Your task to perform on an android device: Do I have any events today? Image 0: 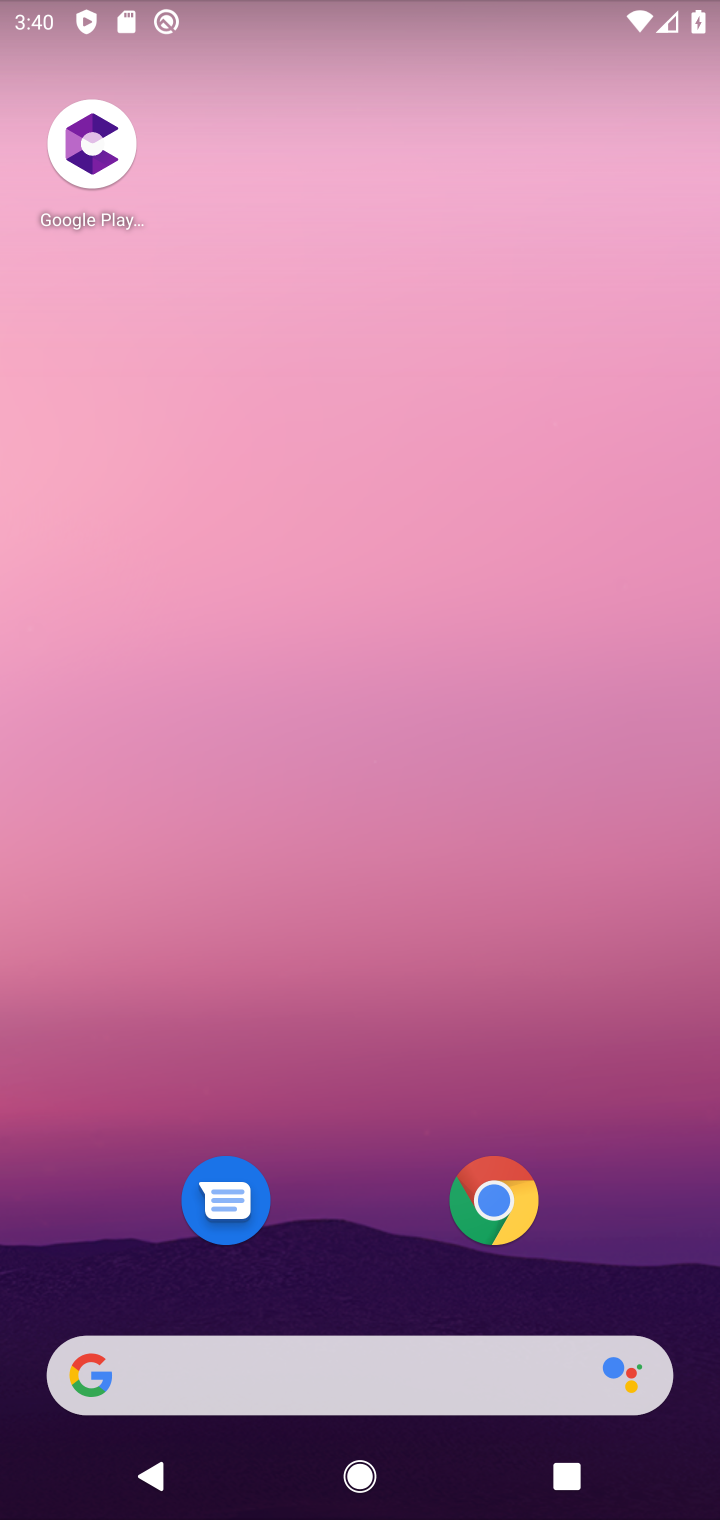
Step 0: drag from (343, 1088) to (514, 4)
Your task to perform on an android device: Do I have any events today? Image 1: 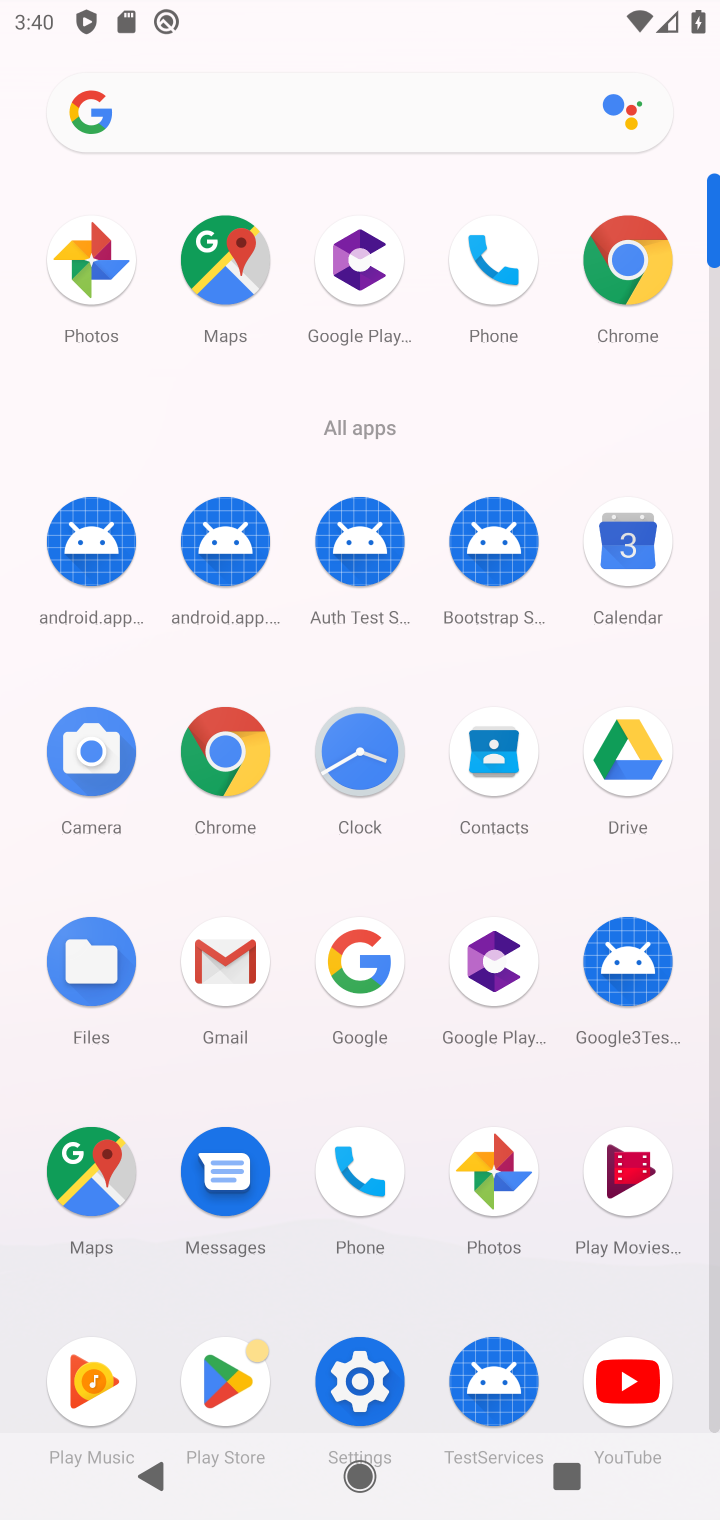
Step 1: click (645, 553)
Your task to perform on an android device: Do I have any events today? Image 2: 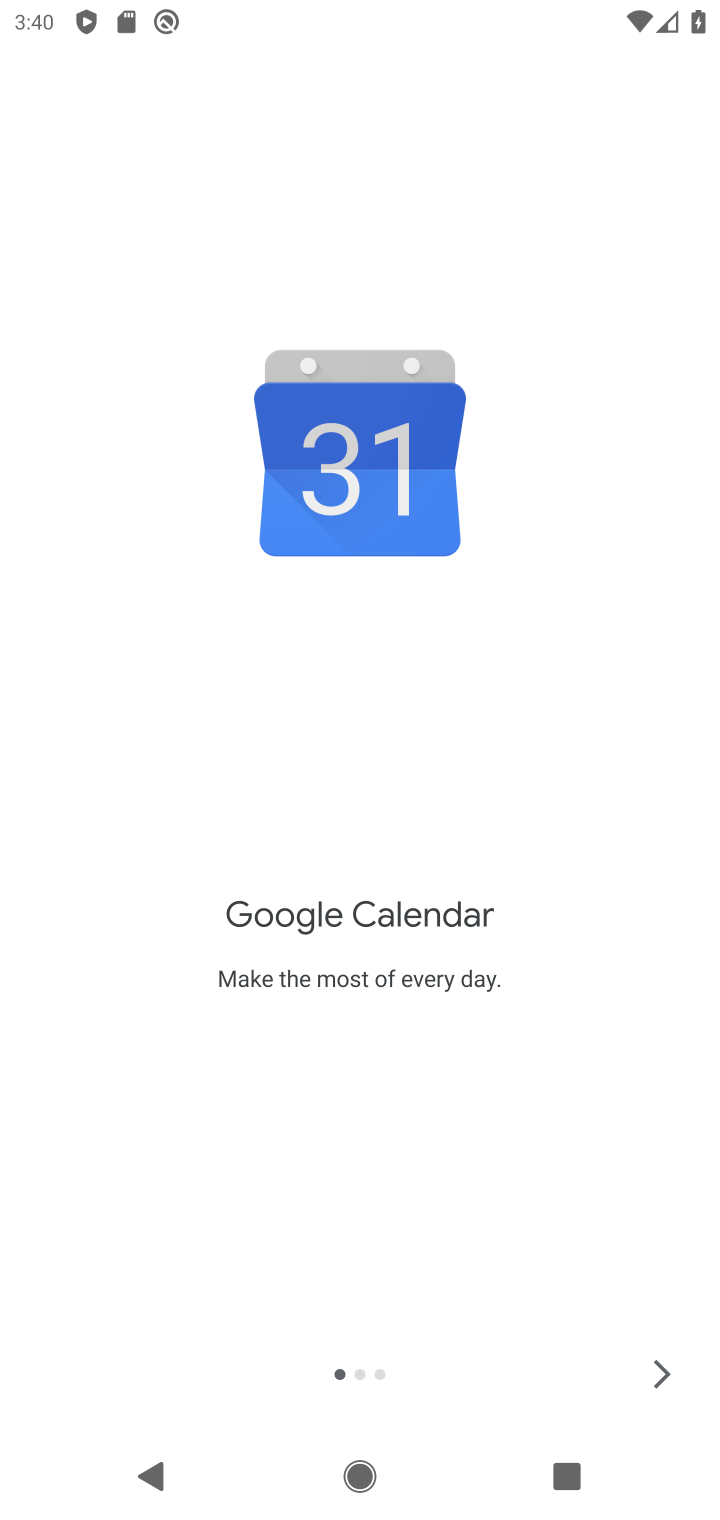
Step 2: click (653, 1383)
Your task to perform on an android device: Do I have any events today? Image 3: 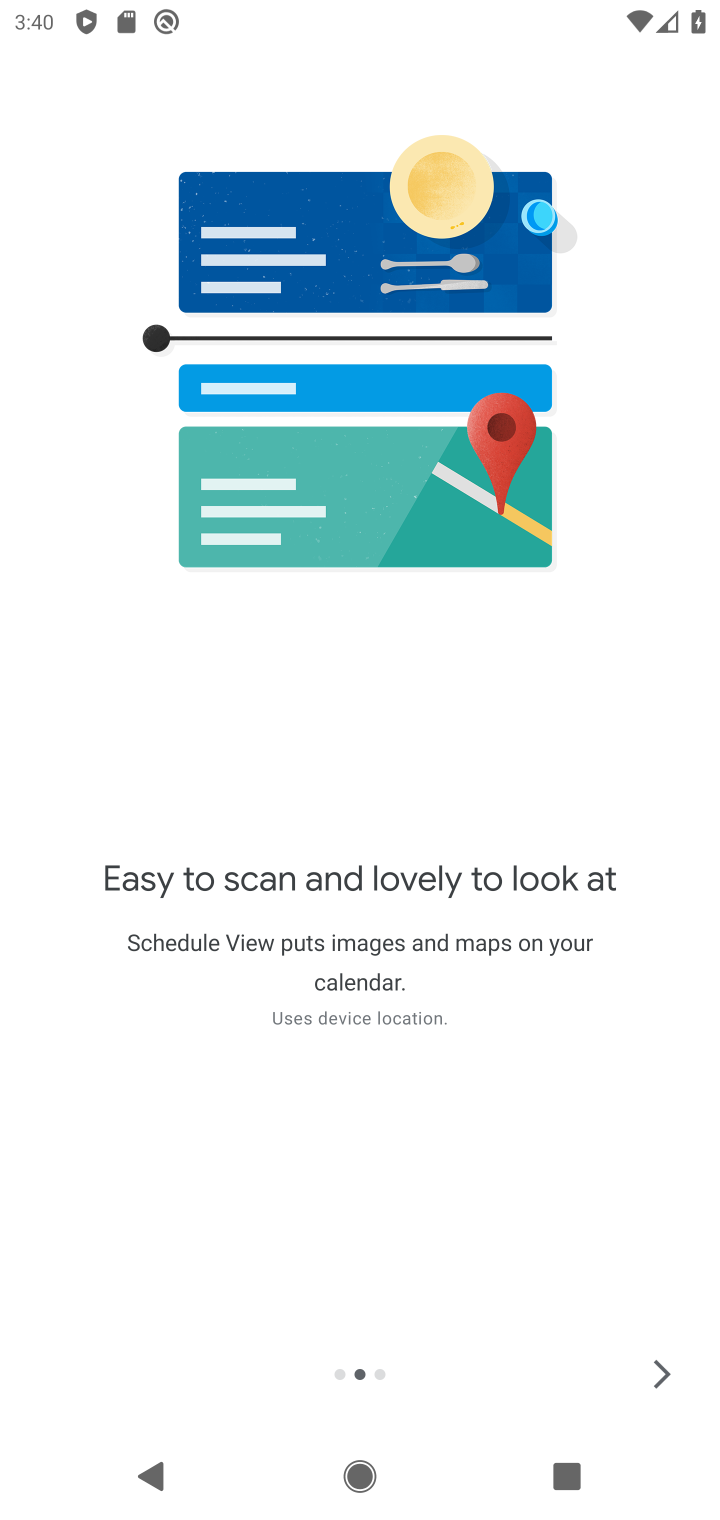
Step 3: click (653, 1383)
Your task to perform on an android device: Do I have any events today? Image 4: 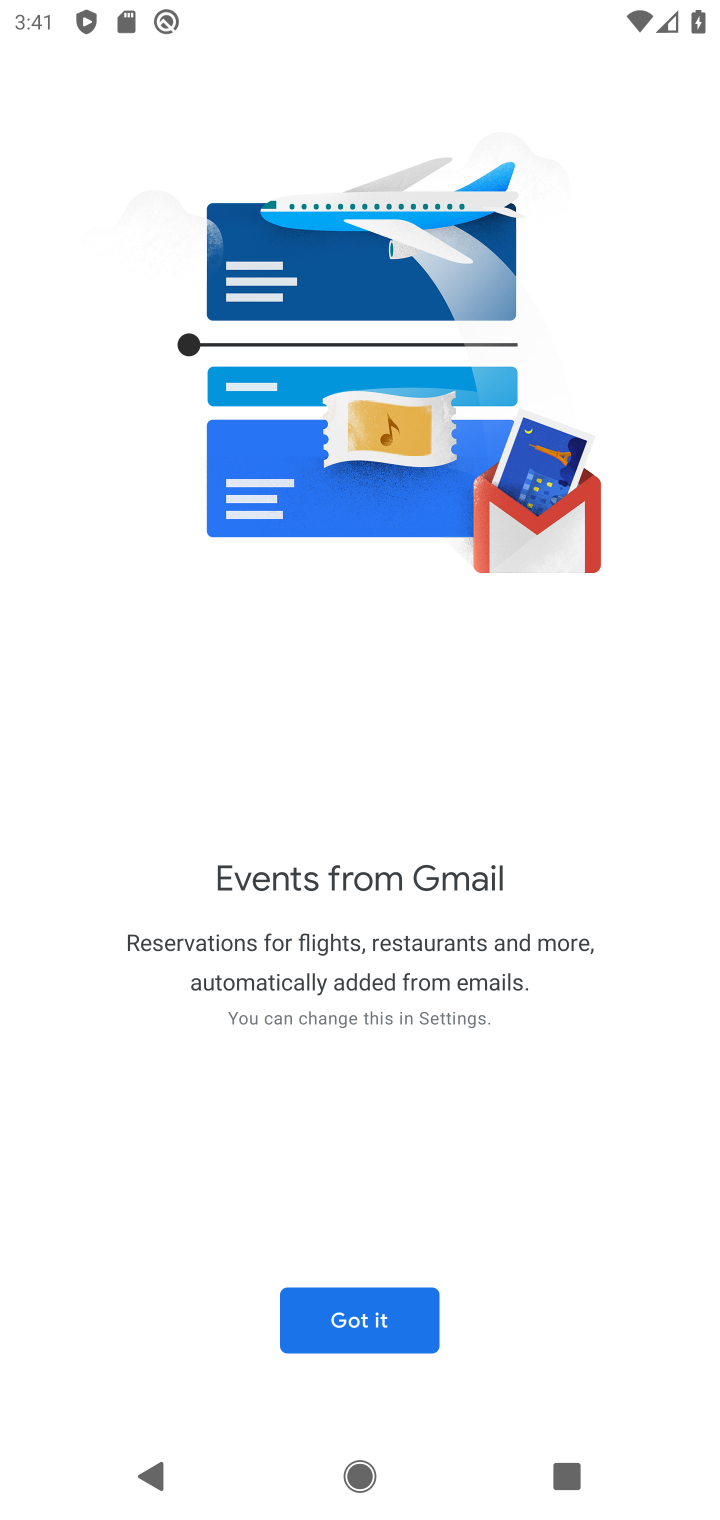
Step 4: click (408, 1331)
Your task to perform on an android device: Do I have any events today? Image 5: 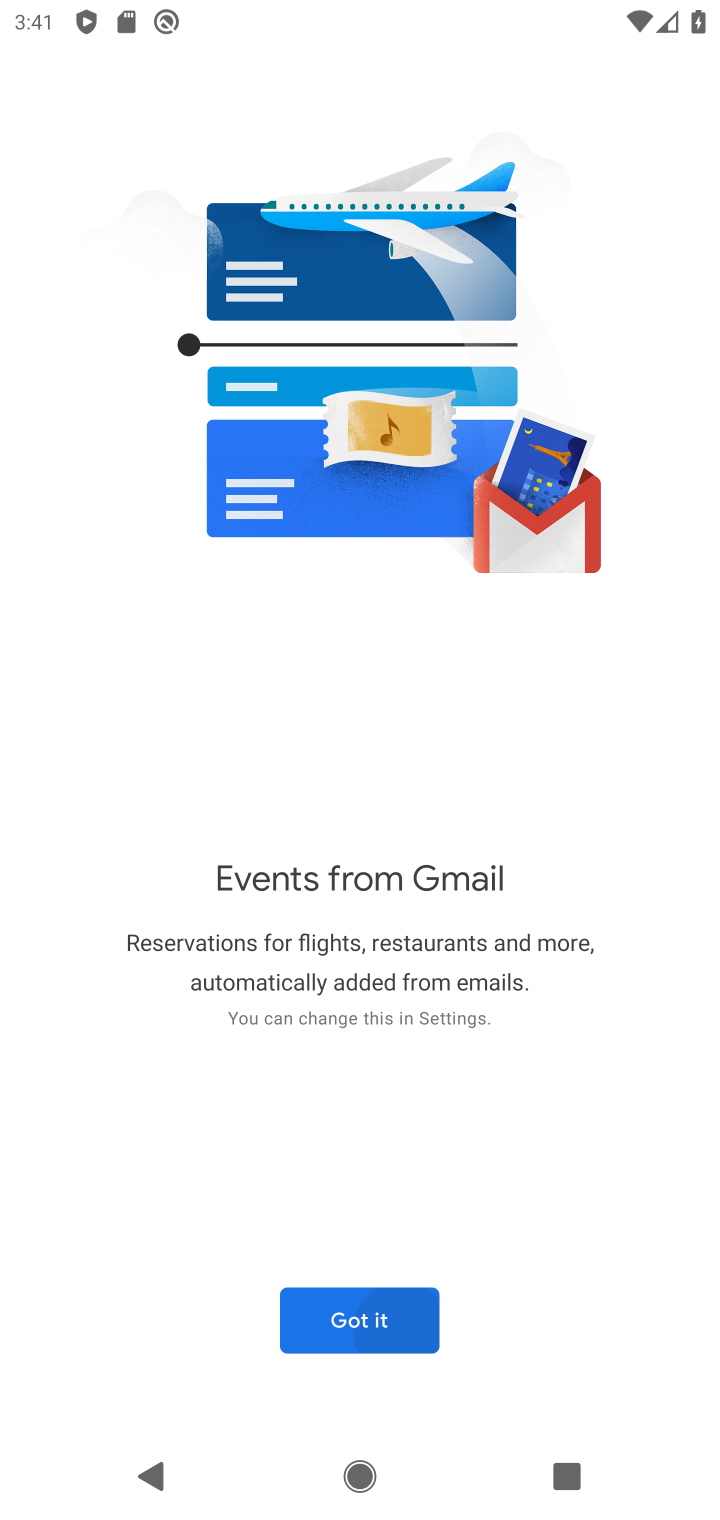
Step 5: click (408, 1331)
Your task to perform on an android device: Do I have any events today? Image 6: 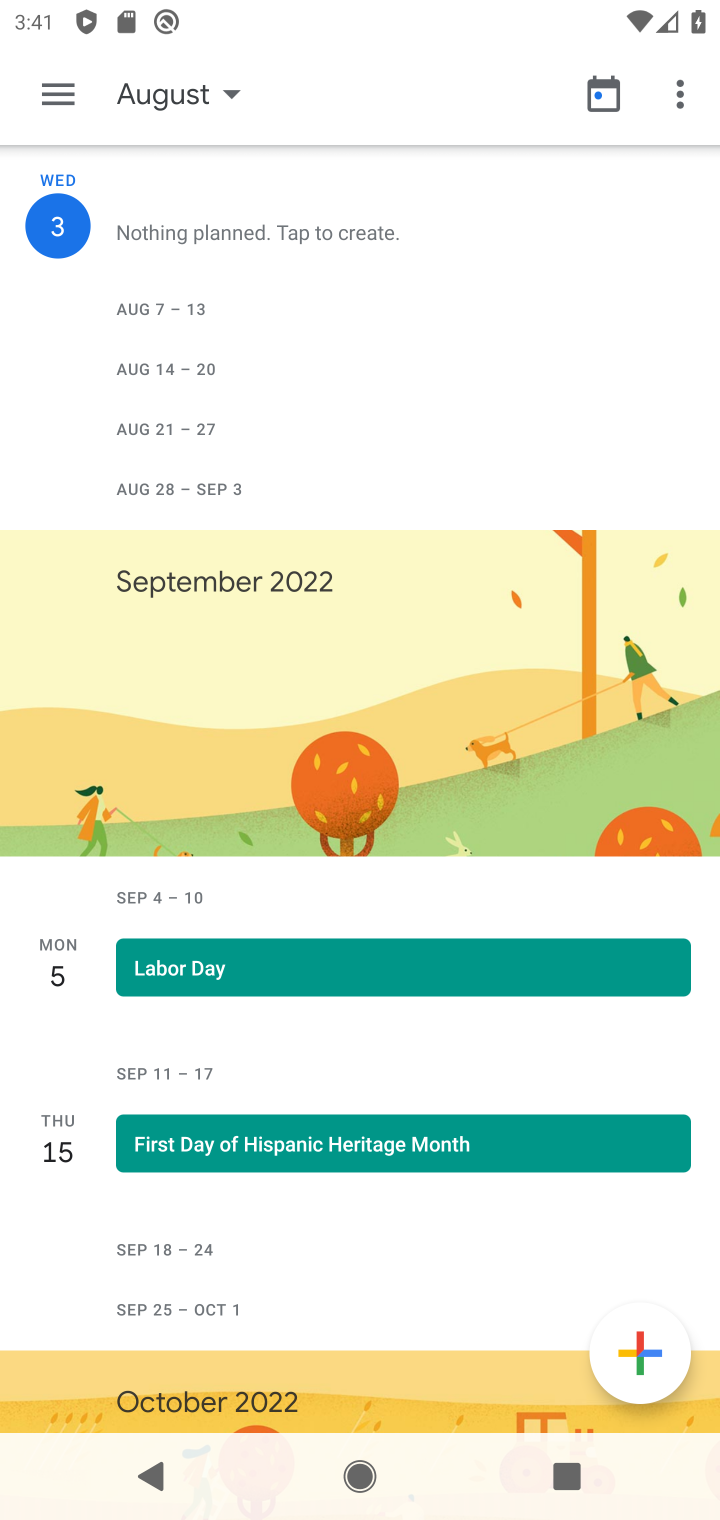
Step 6: click (40, 90)
Your task to perform on an android device: Do I have any events today? Image 7: 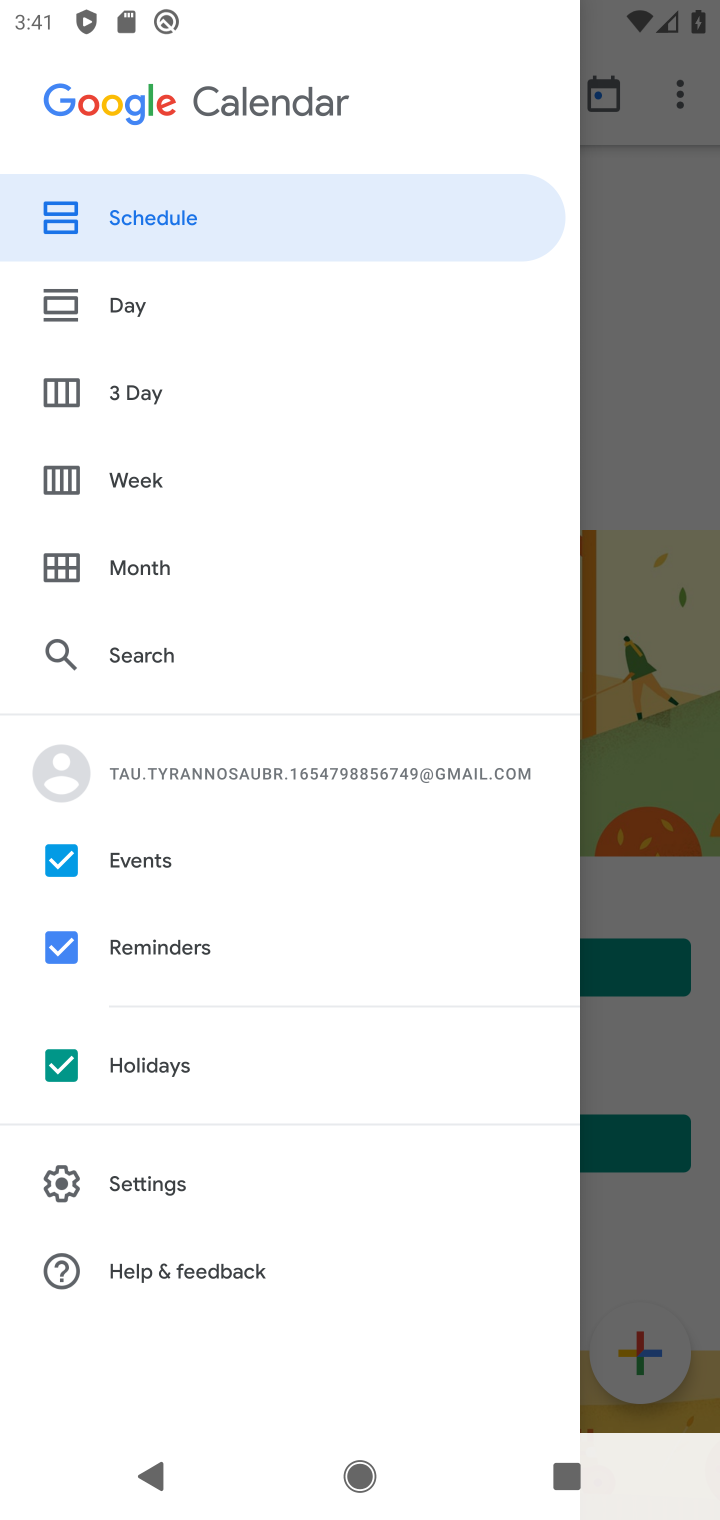
Step 7: click (169, 949)
Your task to perform on an android device: Do I have any events today? Image 8: 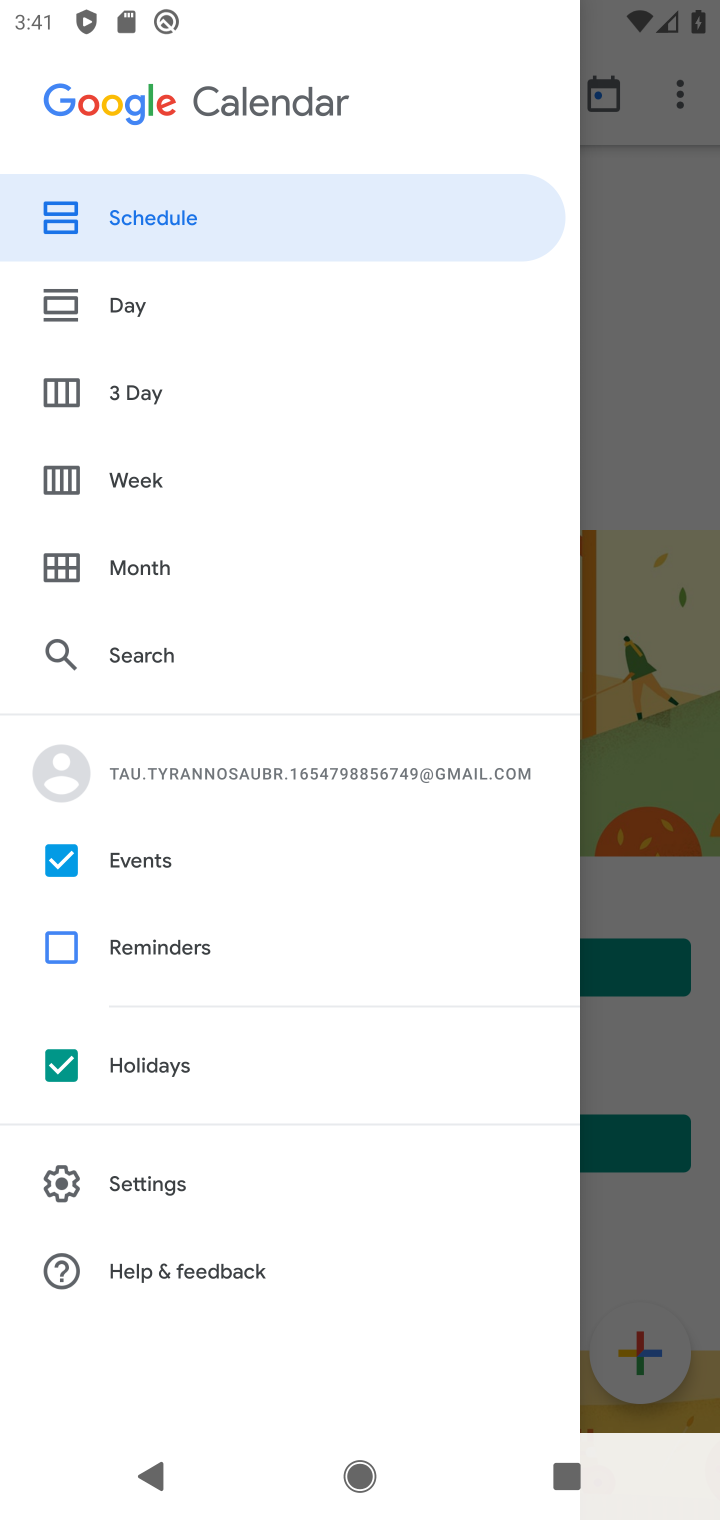
Step 8: click (156, 1064)
Your task to perform on an android device: Do I have any events today? Image 9: 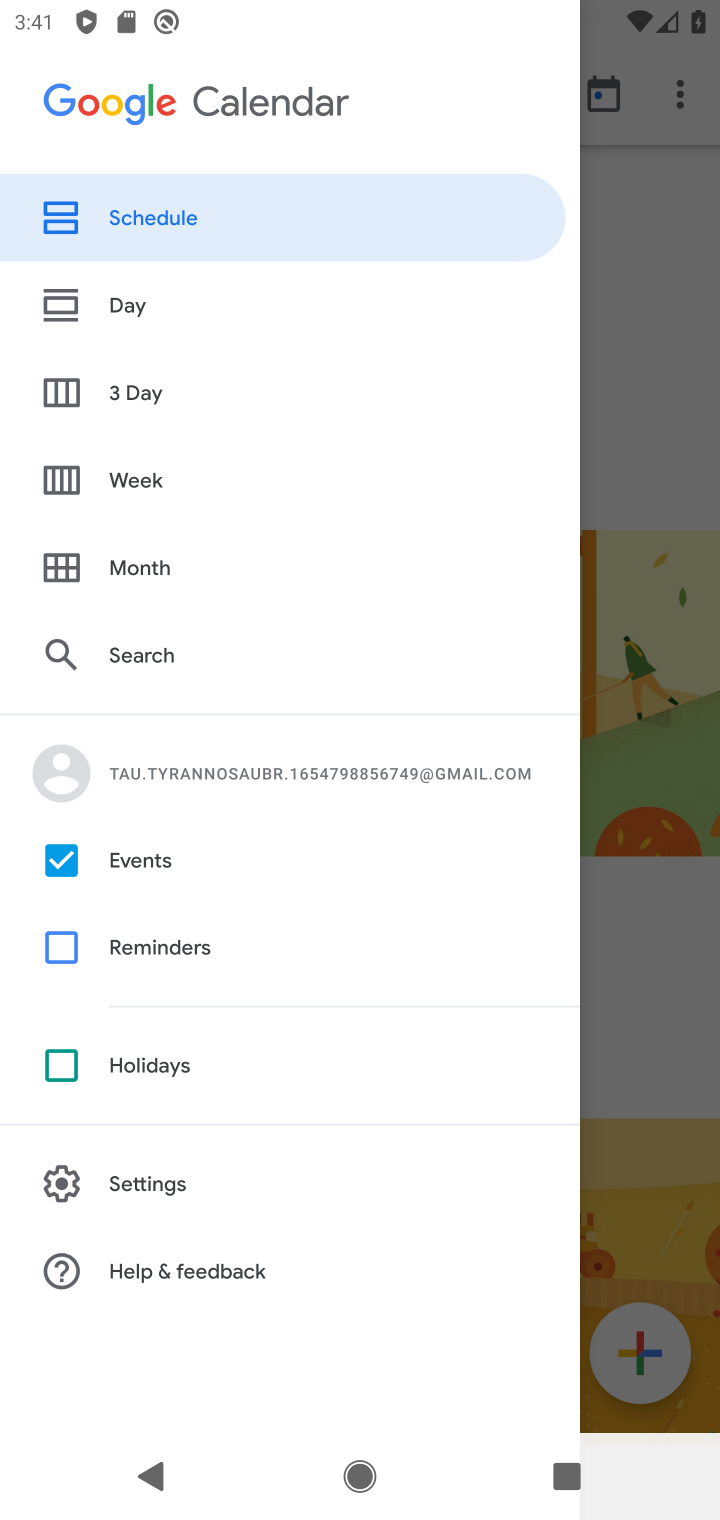
Step 9: click (133, 290)
Your task to perform on an android device: Do I have any events today? Image 10: 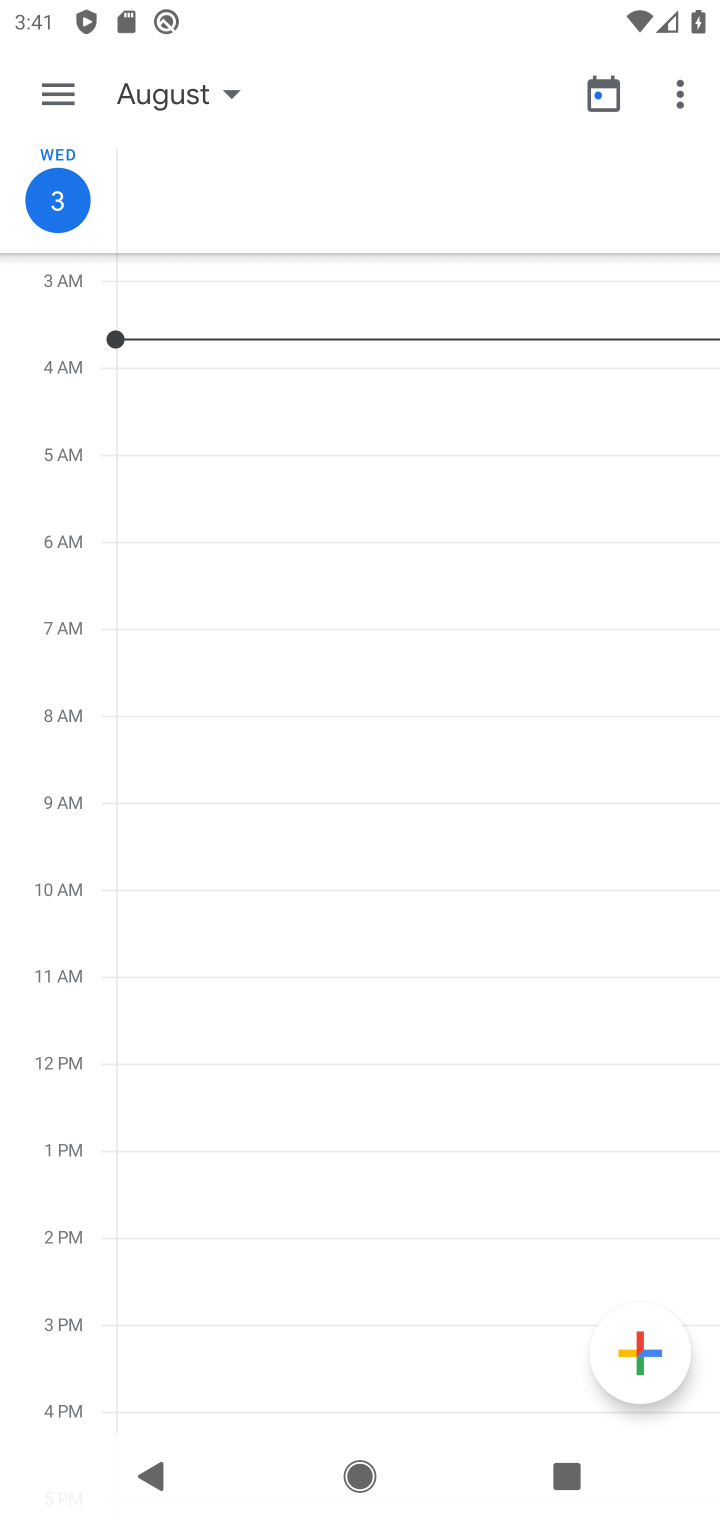
Step 10: task complete